Your task to perform on an android device: open a new tab in the chrome app Image 0: 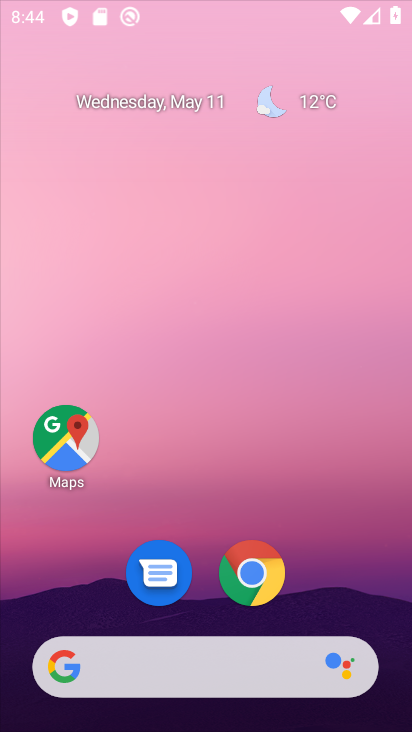
Step 0: click (298, 1)
Your task to perform on an android device: open a new tab in the chrome app Image 1: 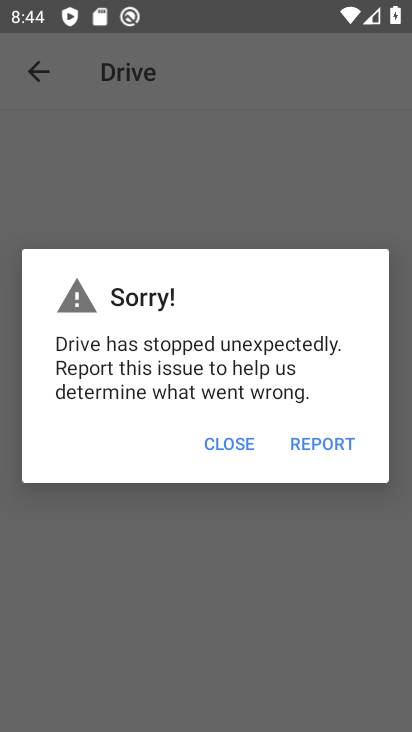
Step 1: click (246, 439)
Your task to perform on an android device: open a new tab in the chrome app Image 2: 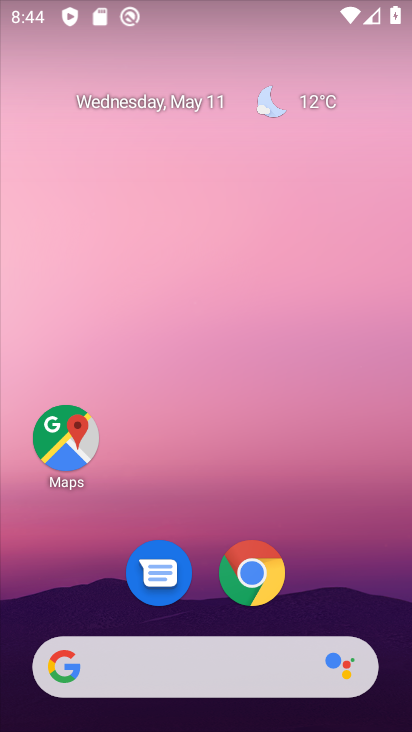
Step 2: drag from (328, 622) to (345, 0)
Your task to perform on an android device: open a new tab in the chrome app Image 3: 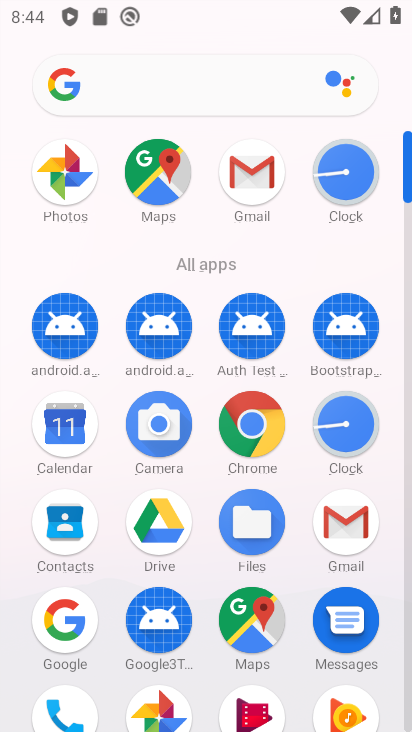
Step 3: click (248, 420)
Your task to perform on an android device: open a new tab in the chrome app Image 4: 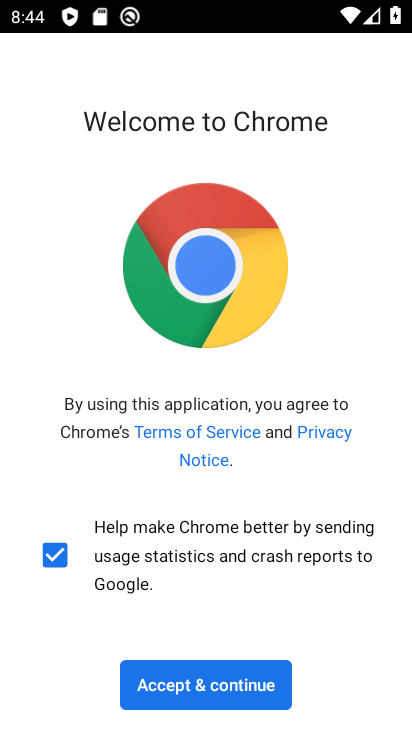
Step 4: click (234, 699)
Your task to perform on an android device: open a new tab in the chrome app Image 5: 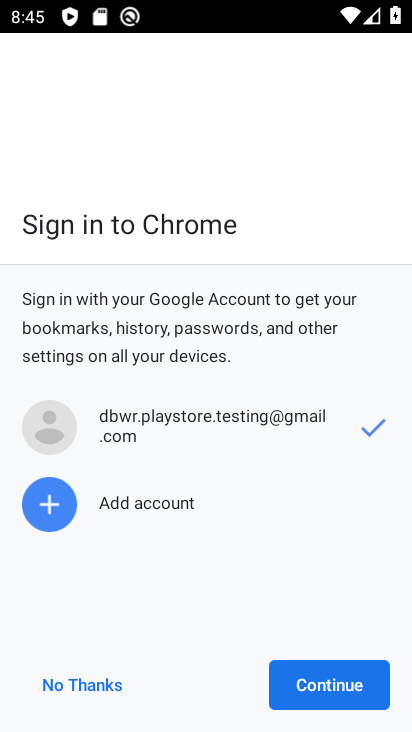
Step 5: click (69, 685)
Your task to perform on an android device: open a new tab in the chrome app Image 6: 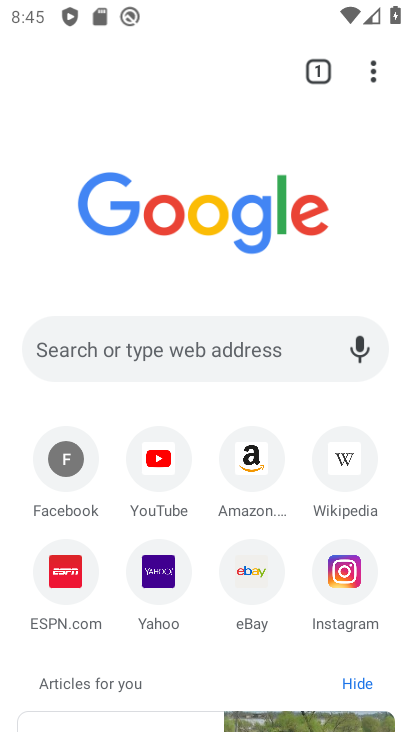
Step 6: task complete